Your task to perform on an android device: star an email in the gmail app Image 0: 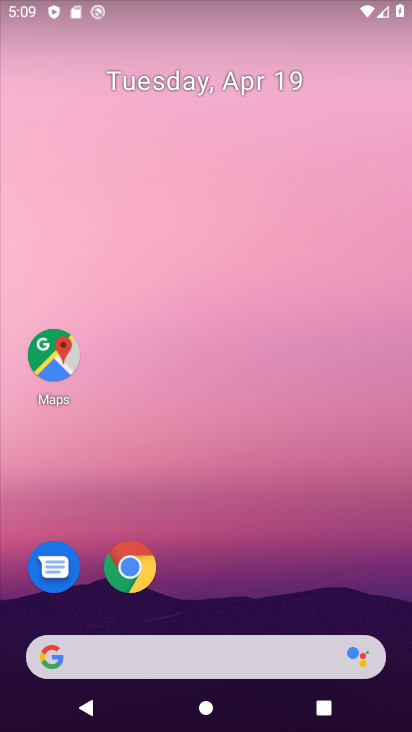
Step 0: drag from (257, 378) to (235, 27)
Your task to perform on an android device: star an email in the gmail app Image 1: 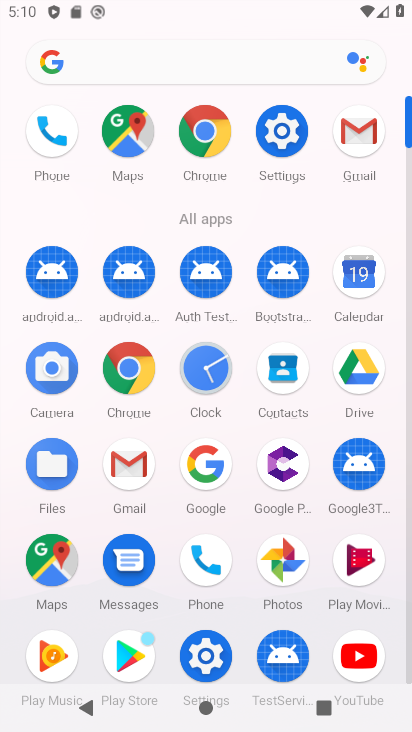
Step 1: click (365, 124)
Your task to perform on an android device: star an email in the gmail app Image 2: 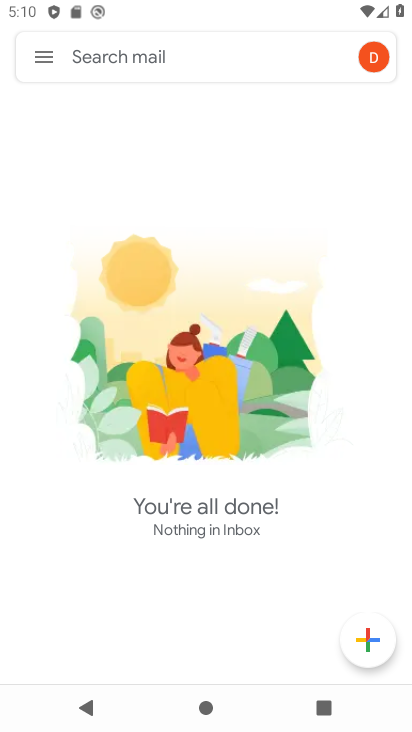
Step 2: click (46, 52)
Your task to perform on an android device: star an email in the gmail app Image 3: 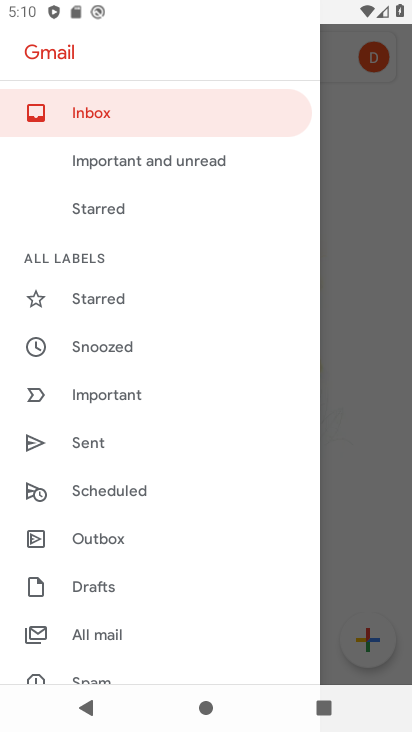
Step 3: task complete